Your task to perform on an android device: What's the weather? Image 0: 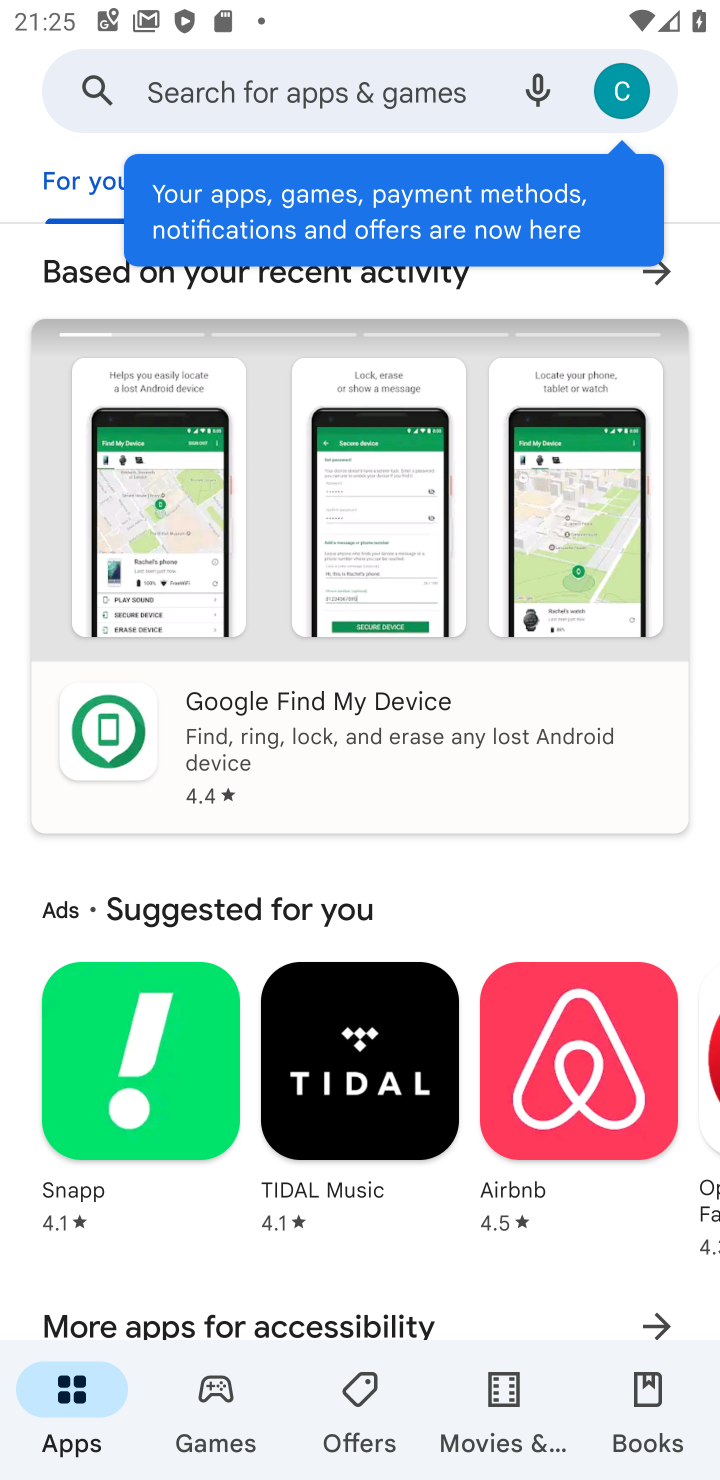
Step 0: press home button
Your task to perform on an android device: What's the weather? Image 1: 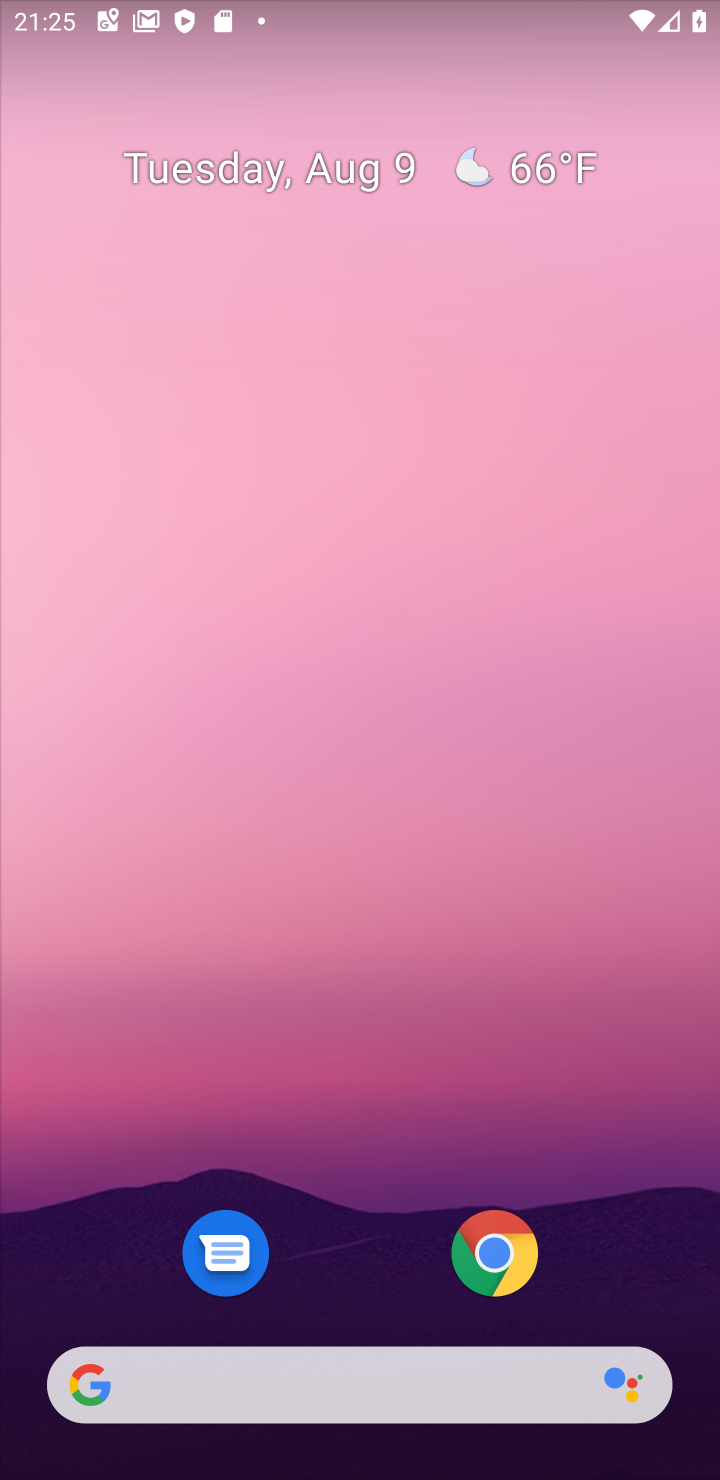
Step 1: click (577, 163)
Your task to perform on an android device: What's the weather? Image 2: 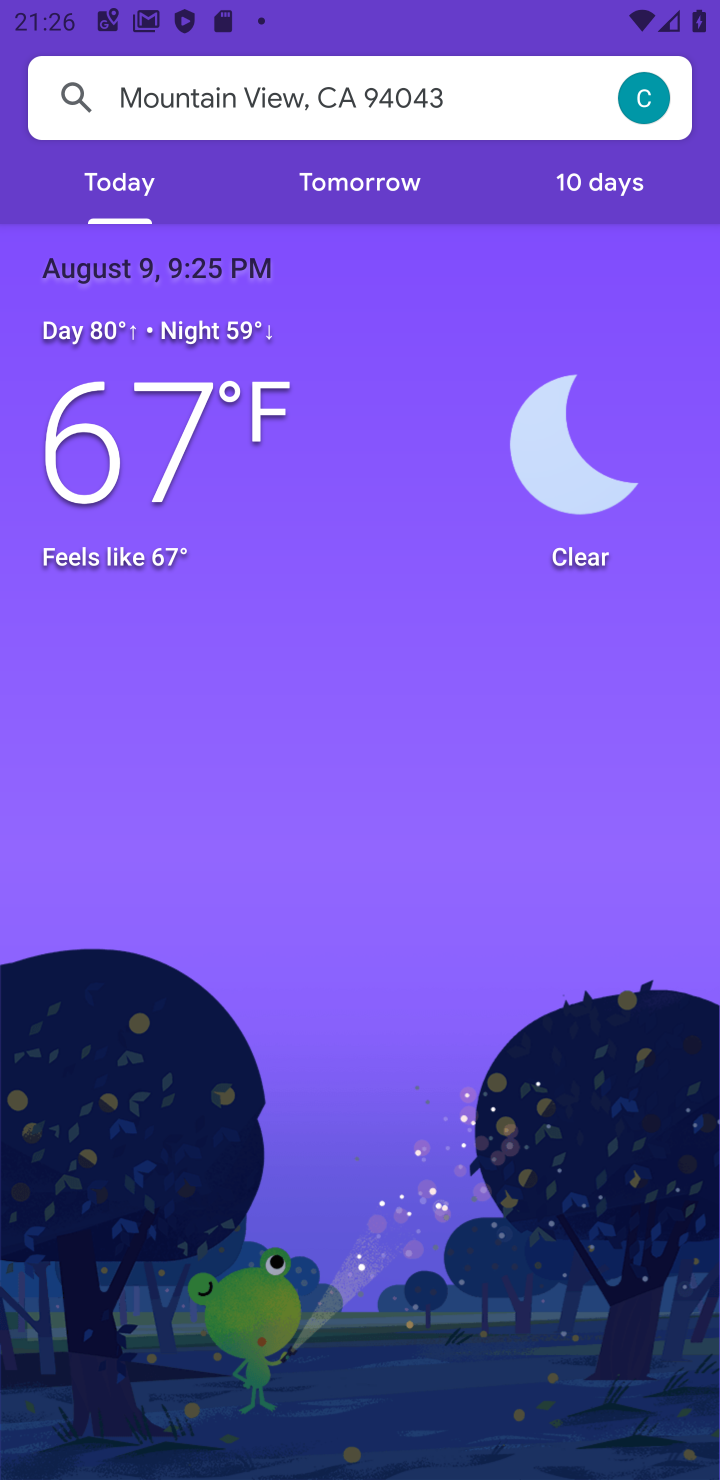
Step 2: task complete